Your task to perform on an android device: uninstall "eBay: The shopping marketplace" Image 0: 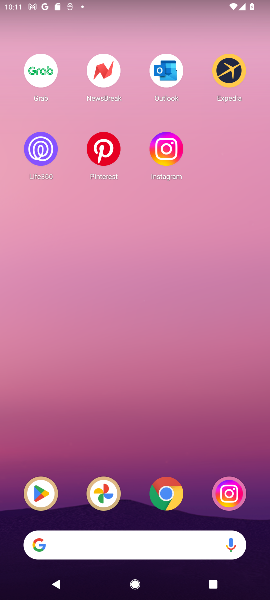
Step 0: click (45, 497)
Your task to perform on an android device: uninstall "eBay: The shopping marketplace" Image 1: 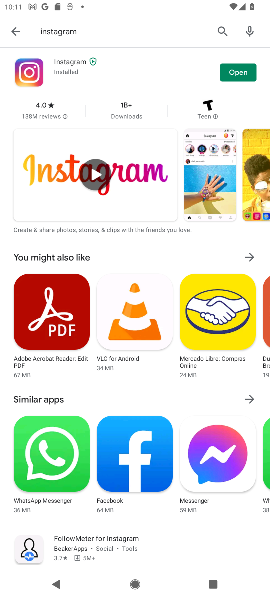
Step 1: click (215, 28)
Your task to perform on an android device: uninstall "eBay: The shopping marketplace" Image 2: 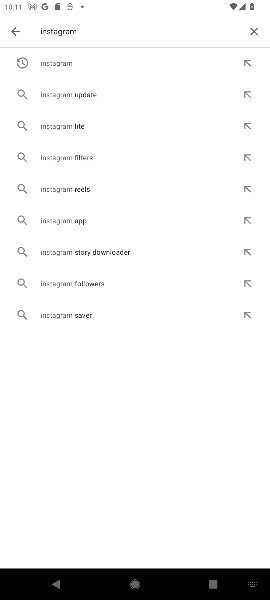
Step 2: click (250, 36)
Your task to perform on an android device: uninstall "eBay: The shopping marketplace" Image 3: 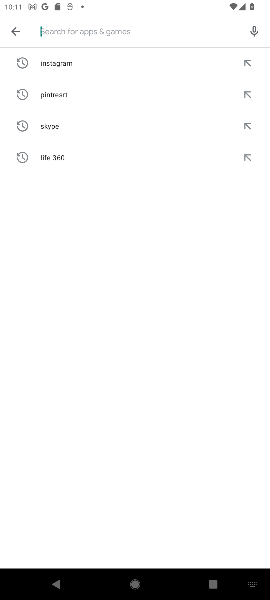
Step 3: type "ebay"
Your task to perform on an android device: uninstall "eBay: The shopping marketplace" Image 4: 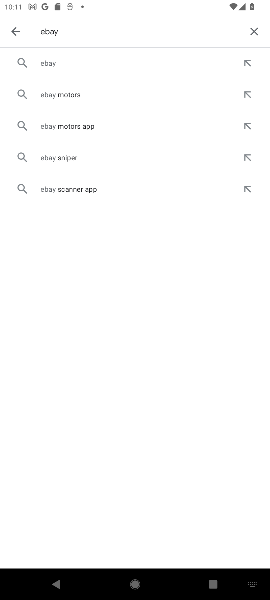
Step 4: click (89, 53)
Your task to perform on an android device: uninstall "eBay: The shopping marketplace" Image 5: 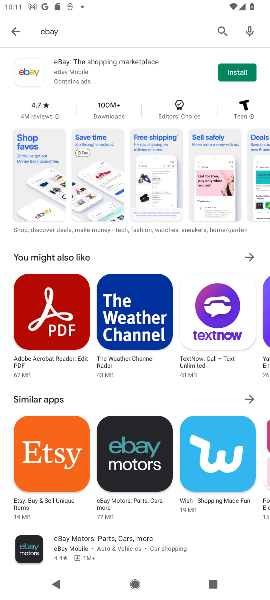
Step 5: click (226, 65)
Your task to perform on an android device: uninstall "eBay: The shopping marketplace" Image 6: 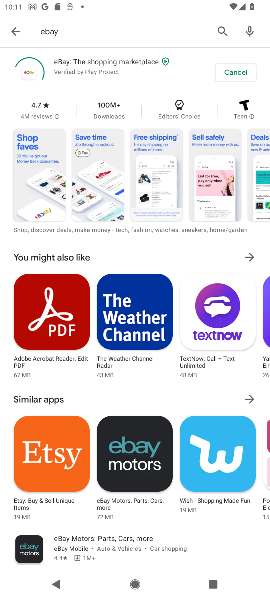
Step 6: task complete